Your task to perform on an android device: turn off javascript in the chrome app Image 0: 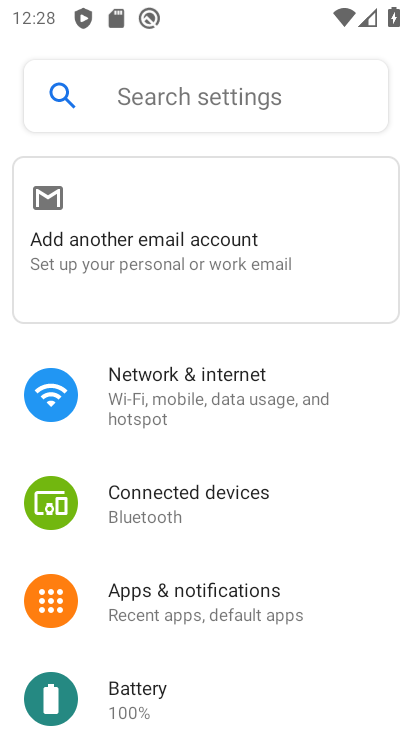
Step 0: press home button
Your task to perform on an android device: turn off javascript in the chrome app Image 1: 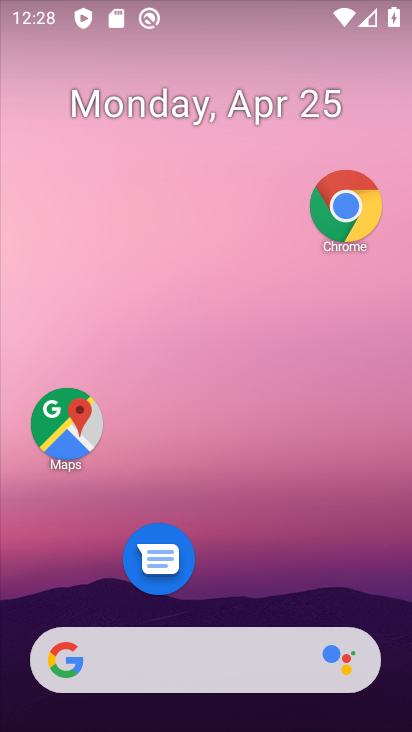
Step 1: click (340, 209)
Your task to perform on an android device: turn off javascript in the chrome app Image 2: 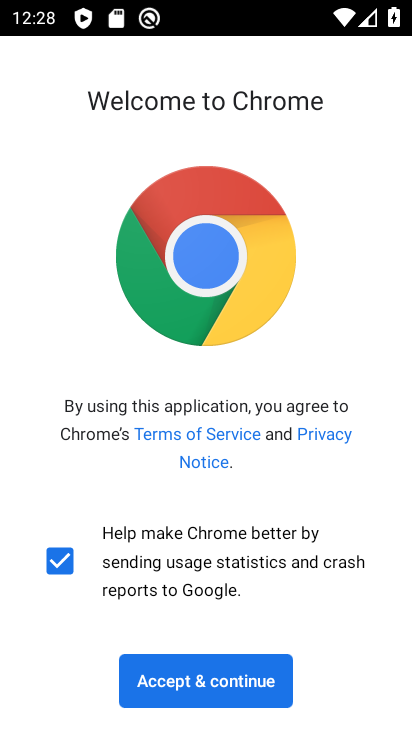
Step 2: click (213, 667)
Your task to perform on an android device: turn off javascript in the chrome app Image 3: 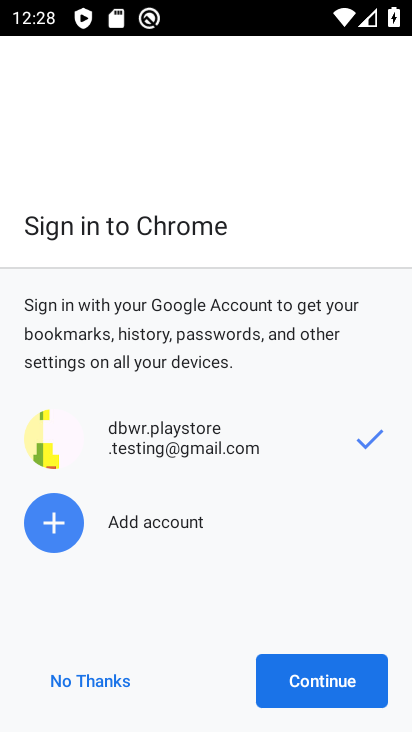
Step 3: click (313, 676)
Your task to perform on an android device: turn off javascript in the chrome app Image 4: 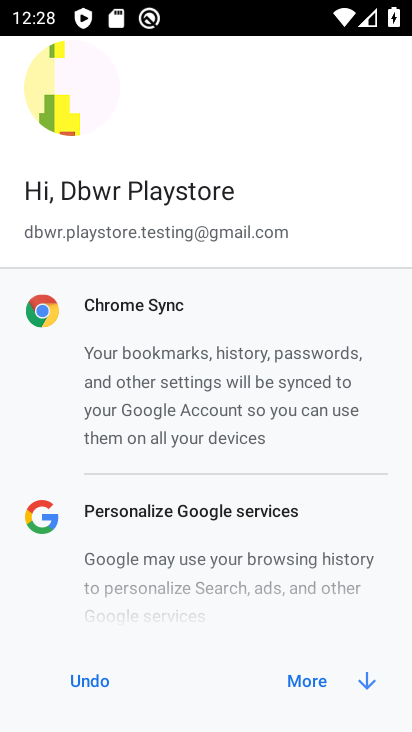
Step 4: click (314, 685)
Your task to perform on an android device: turn off javascript in the chrome app Image 5: 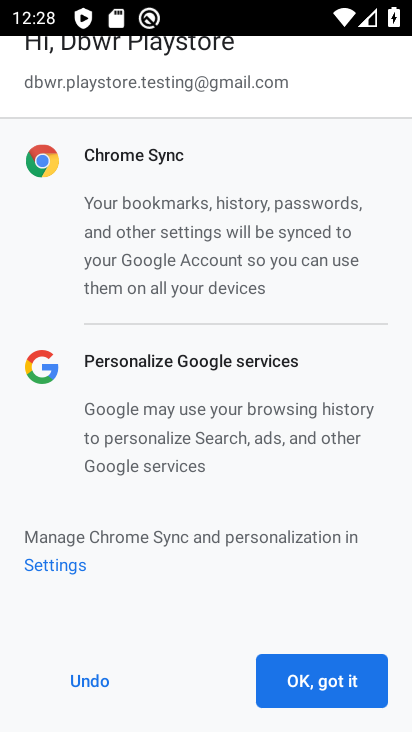
Step 5: click (328, 689)
Your task to perform on an android device: turn off javascript in the chrome app Image 6: 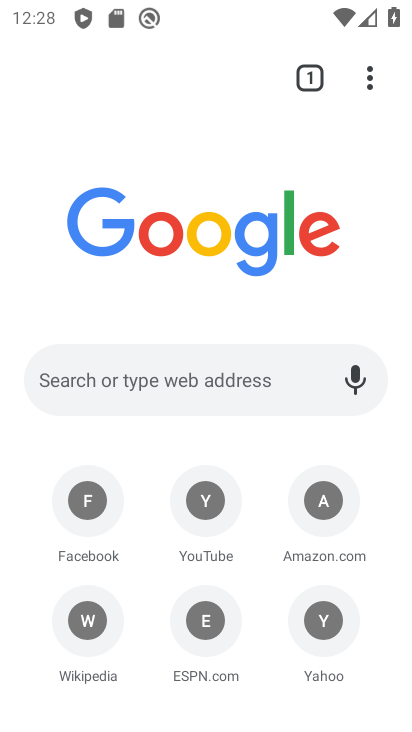
Step 6: click (370, 63)
Your task to perform on an android device: turn off javascript in the chrome app Image 7: 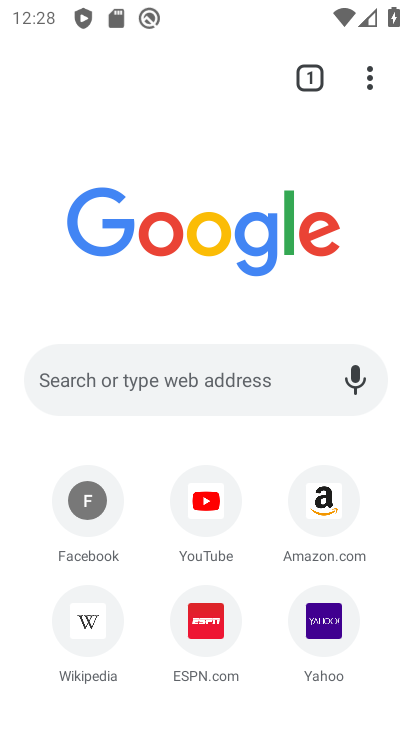
Step 7: drag from (374, 83) to (153, 640)
Your task to perform on an android device: turn off javascript in the chrome app Image 8: 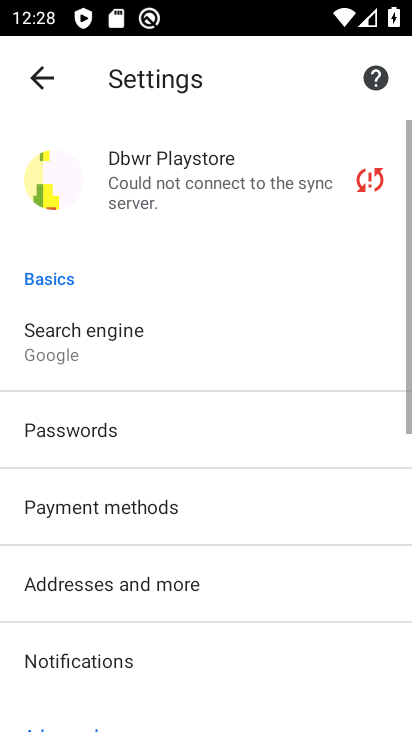
Step 8: drag from (167, 573) to (262, 115)
Your task to perform on an android device: turn off javascript in the chrome app Image 9: 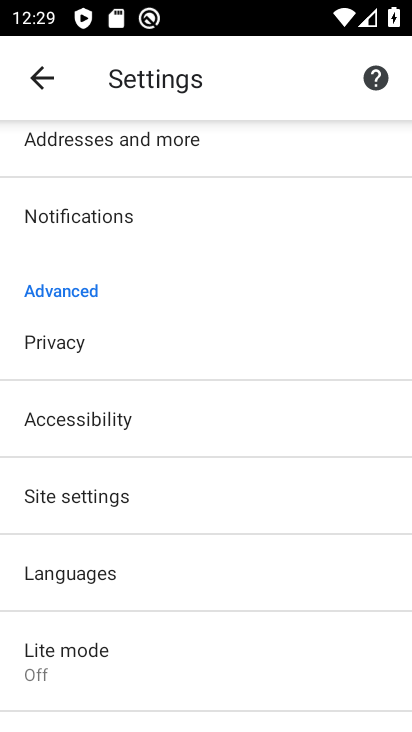
Step 9: click (104, 504)
Your task to perform on an android device: turn off javascript in the chrome app Image 10: 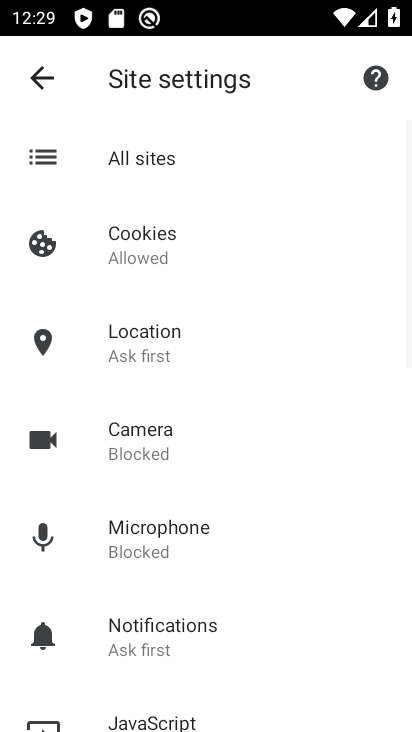
Step 10: click (166, 718)
Your task to perform on an android device: turn off javascript in the chrome app Image 11: 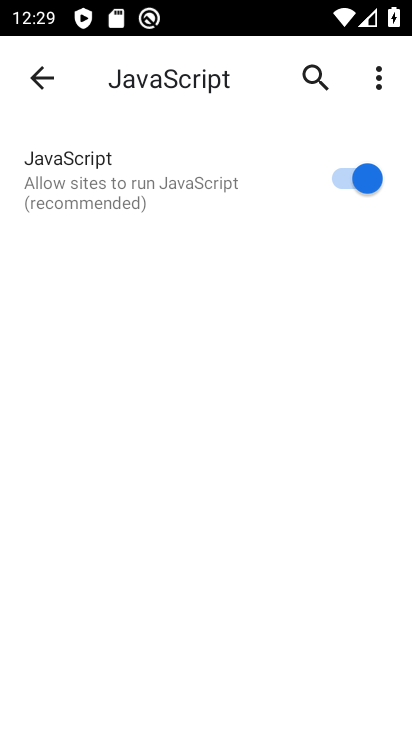
Step 11: click (359, 169)
Your task to perform on an android device: turn off javascript in the chrome app Image 12: 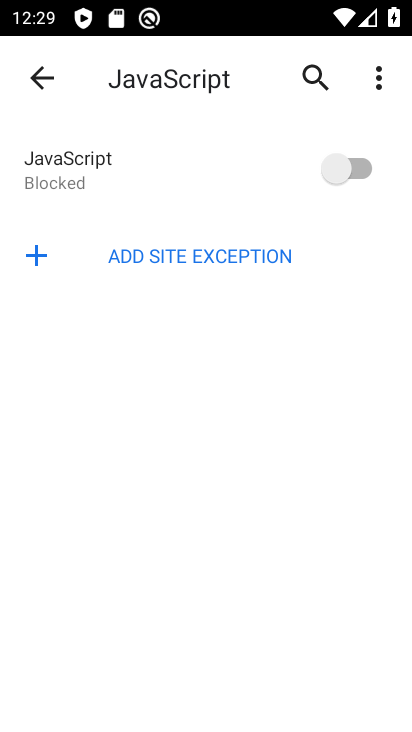
Step 12: task complete